Your task to perform on an android device: change the clock display to show seconds Image 0: 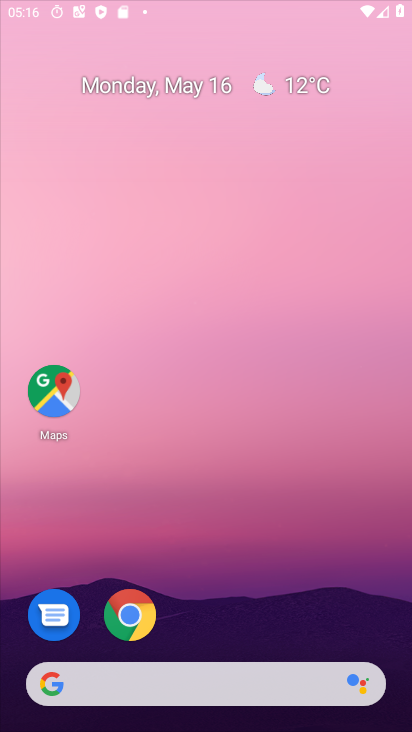
Step 0: drag from (279, 666) to (87, 0)
Your task to perform on an android device: change the clock display to show seconds Image 1: 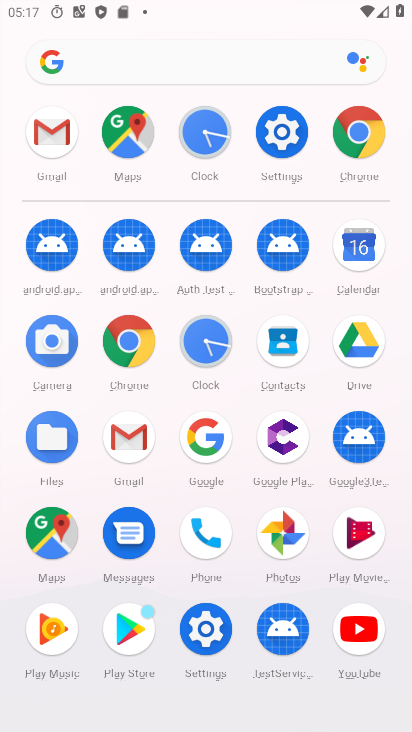
Step 1: click (286, 124)
Your task to perform on an android device: change the clock display to show seconds Image 2: 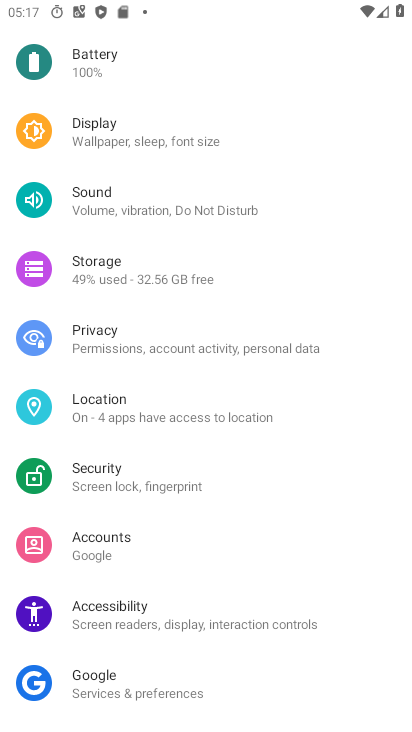
Step 2: drag from (178, 484) to (90, 4)
Your task to perform on an android device: change the clock display to show seconds Image 3: 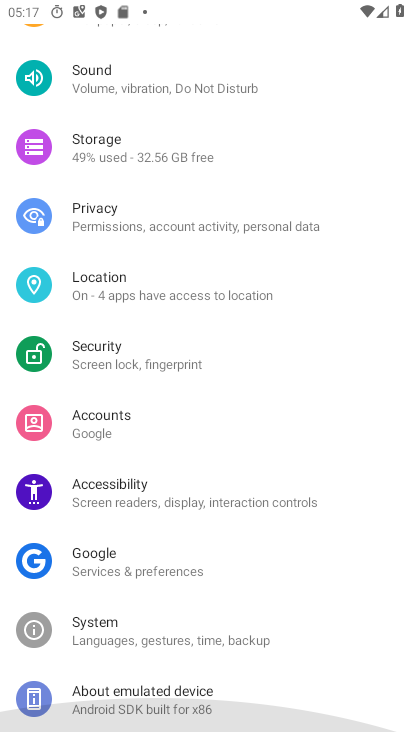
Step 3: drag from (172, 517) to (83, 23)
Your task to perform on an android device: change the clock display to show seconds Image 4: 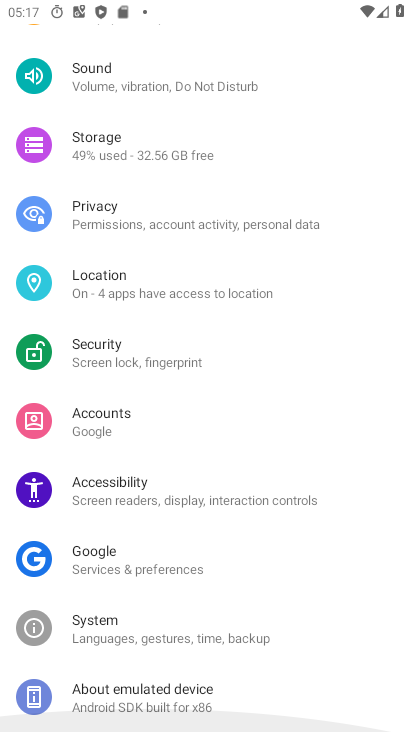
Step 4: drag from (154, 452) to (121, 8)
Your task to perform on an android device: change the clock display to show seconds Image 5: 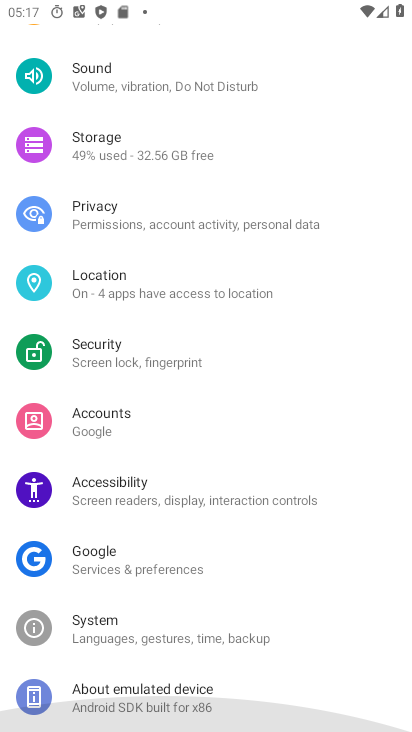
Step 5: drag from (146, 506) to (237, 15)
Your task to perform on an android device: change the clock display to show seconds Image 6: 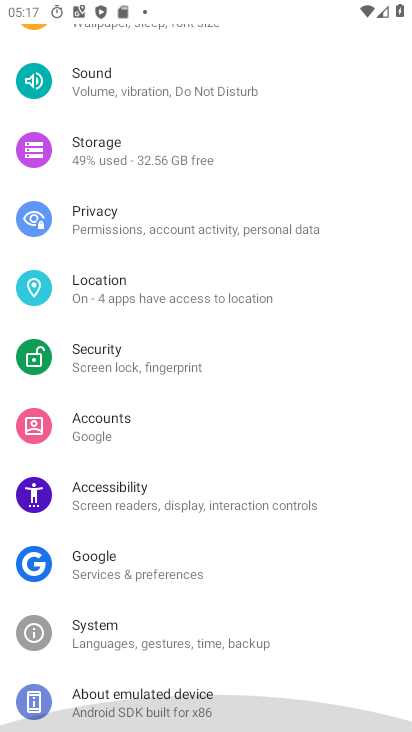
Step 6: drag from (163, 548) to (115, 48)
Your task to perform on an android device: change the clock display to show seconds Image 7: 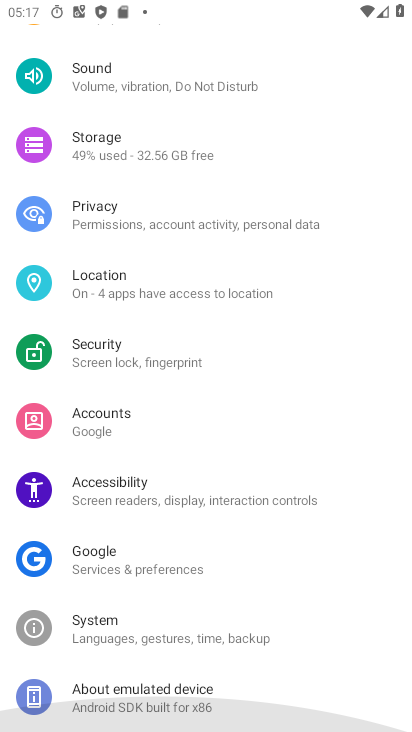
Step 7: drag from (148, 568) to (162, 5)
Your task to perform on an android device: change the clock display to show seconds Image 8: 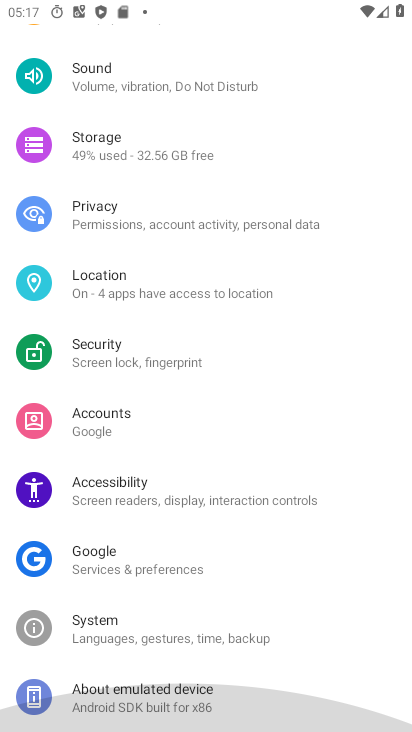
Step 8: drag from (284, 483) to (256, 147)
Your task to perform on an android device: change the clock display to show seconds Image 9: 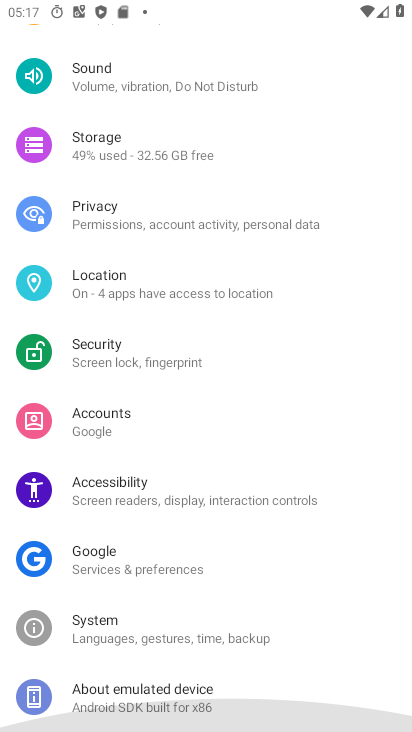
Step 9: drag from (249, 655) to (247, 99)
Your task to perform on an android device: change the clock display to show seconds Image 10: 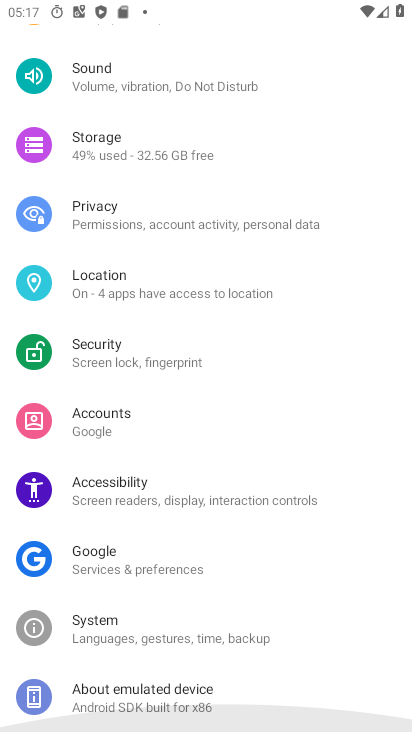
Step 10: drag from (223, 676) to (271, 153)
Your task to perform on an android device: change the clock display to show seconds Image 11: 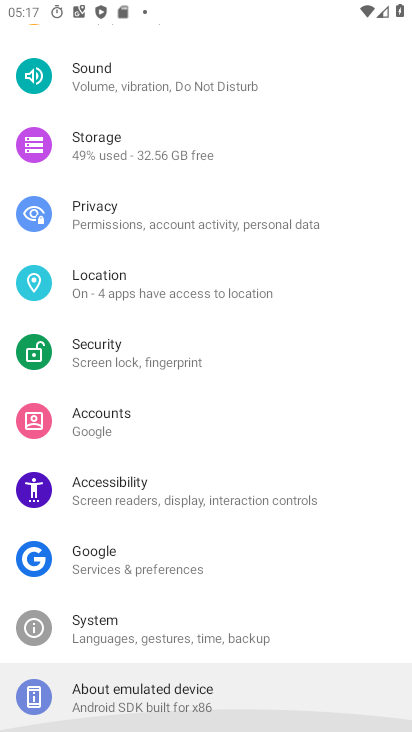
Step 11: drag from (217, 479) to (227, 98)
Your task to perform on an android device: change the clock display to show seconds Image 12: 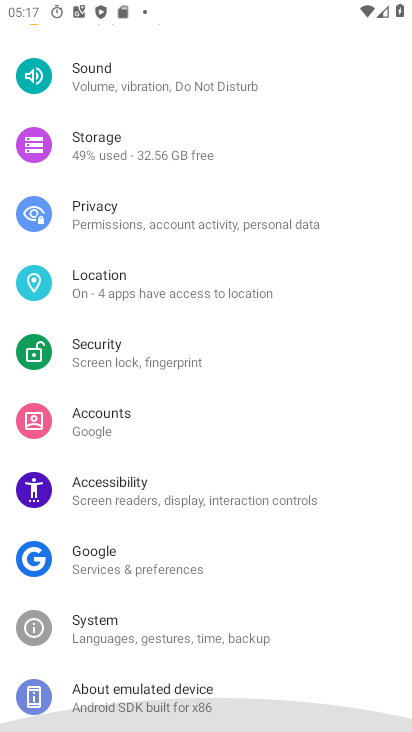
Step 12: drag from (264, 614) to (244, 286)
Your task to perform on an android device: change the clock display to show seconds Image 13: 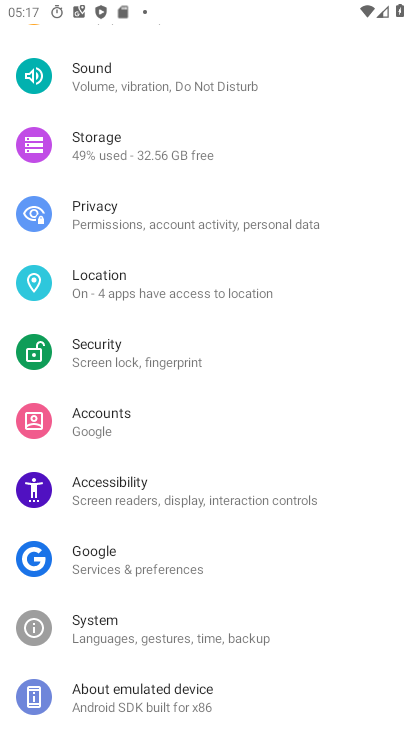
Step 13: drag from (130, 211) to (131, 644)
Your task to perform on an android device: change the clock display to show seconds Image 14: 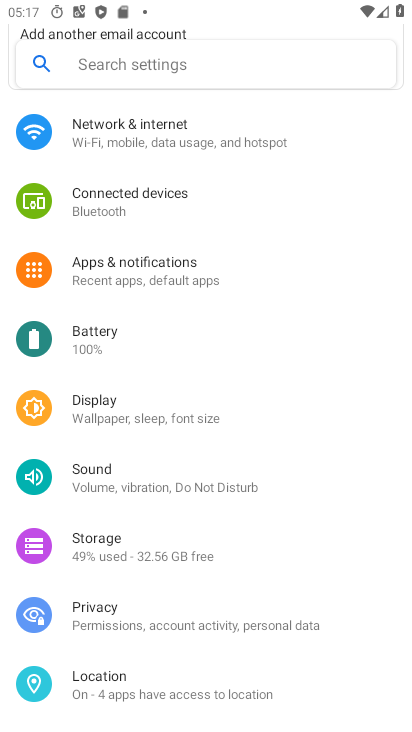
Step 14: drag from (119, 287) to (186, 603)
Your task to perform on an android device: change the clock display to show seconds Image 15: 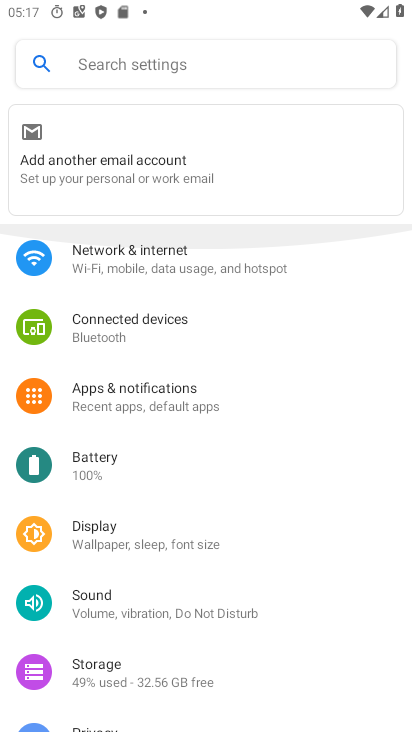
Step 15: drag from (204, 219) to (214, 725)
Your task to perform on an android device: change the clock display to show seconds Image 16: 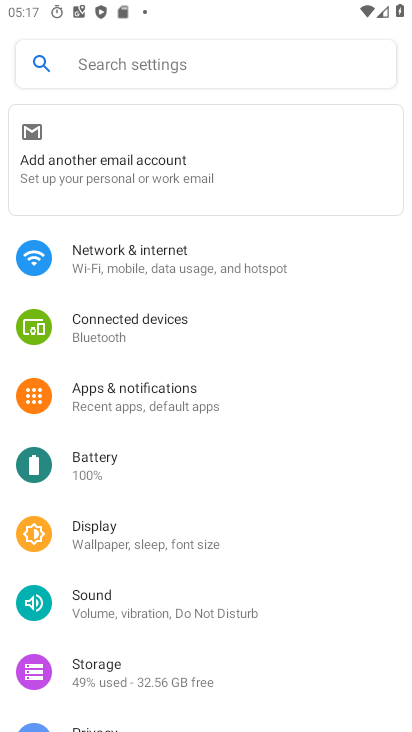
Step 16: drag from (193, 439) to (238, 174)
Your task to perform on an android device: change the clock display to show seconds Image 17: 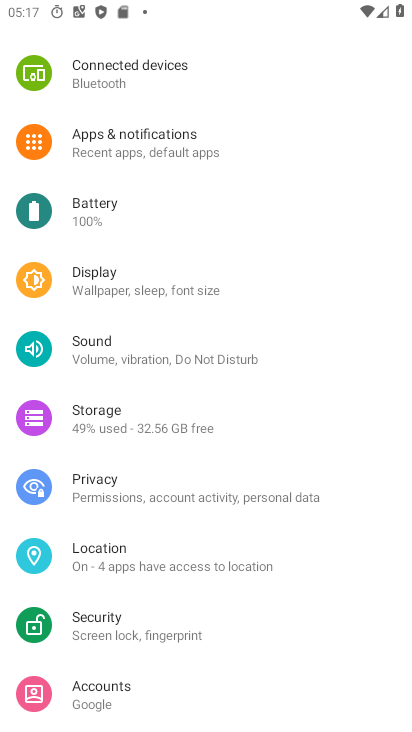
Step 17: drag from (248, 626) to (238, 202)
Your task to perform on an android device: change the clock display to show seconds Image 18: 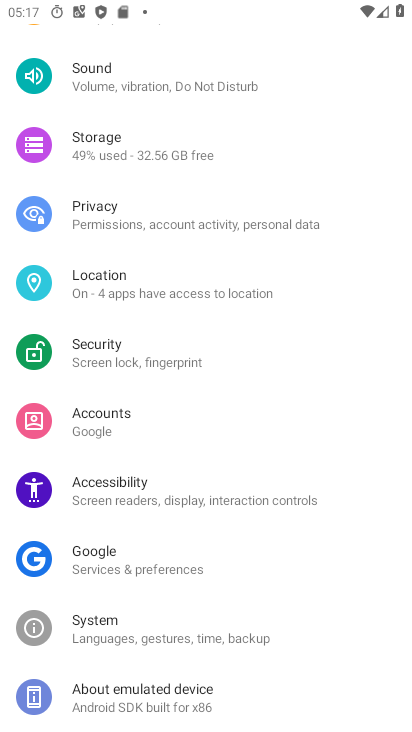
Step 18: drag from (263, 529) to (223, 204)
Your task to perform on an android device: change the clock display to show seconds Image 19: 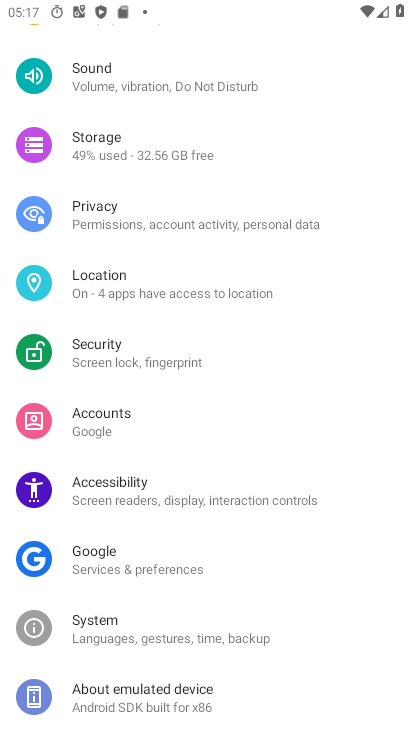
Step 19: press back button
Your task to perform on an android device: change the clock display to show seconds Image 20: 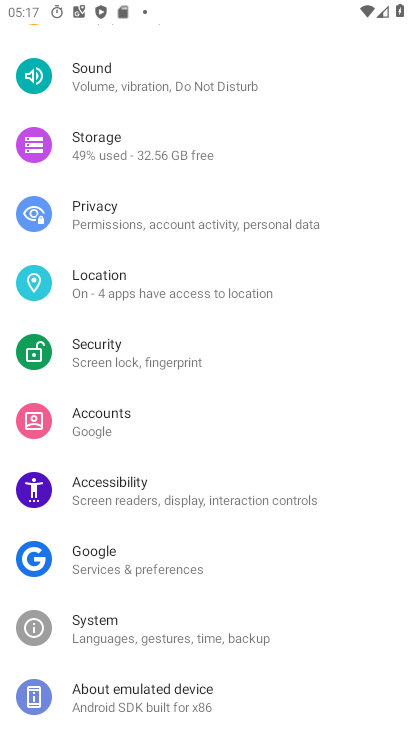
Step 20: press back button
Your task to perform on an android device: change the clock display to show seconds Image 21: 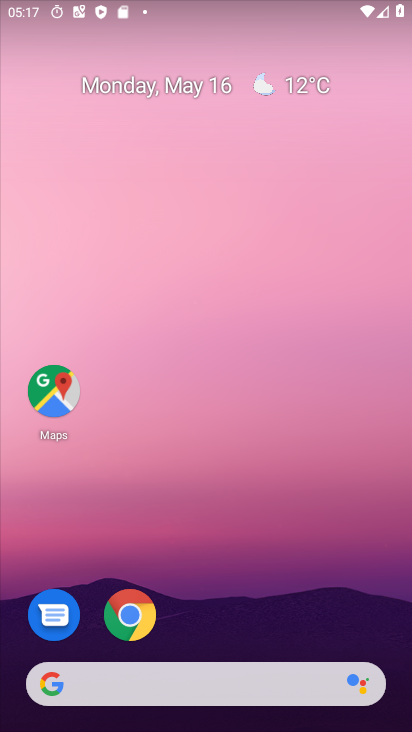
Step 21: drag from (257, 504) to (256, 116)
Your task to perform on an android device: change the clock display to show seconds Image 22: 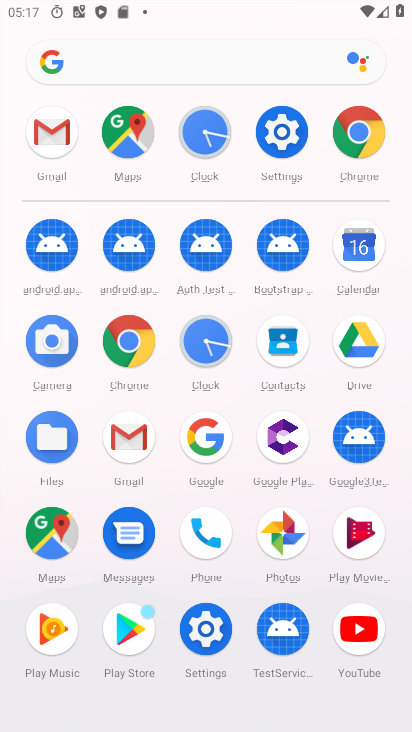
Step 22: click (269, 136)
Your task to perform on an android device: change the clock display to show seconds Image 23: 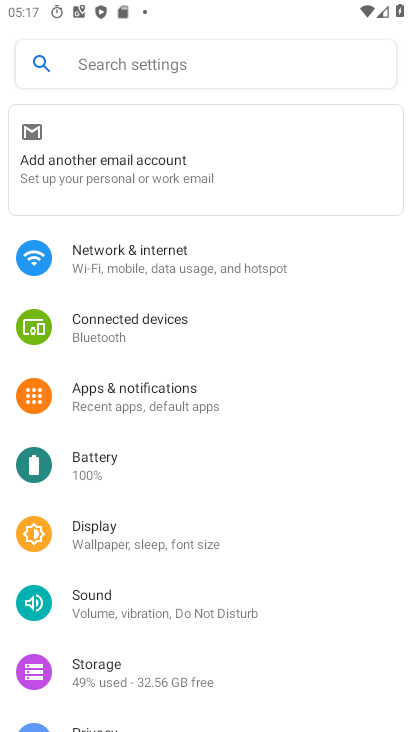
Step 23: press back button
Your task to perform on an android device: change the clock display to show seconds Image 24: 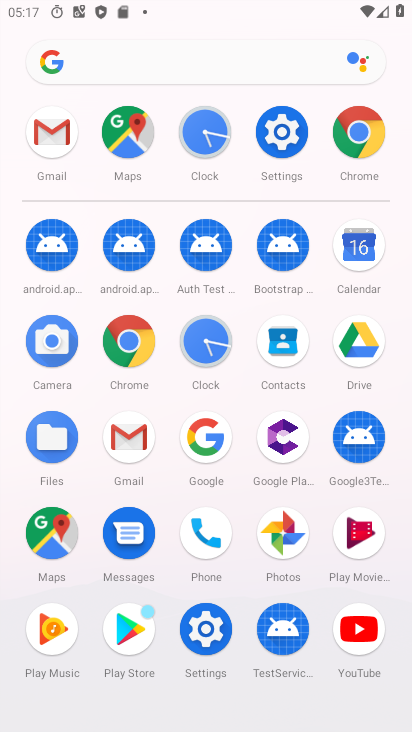
Step 24: click (203, 333)
Your task to perform on an android device: change the clock display to show seconds Image 25: 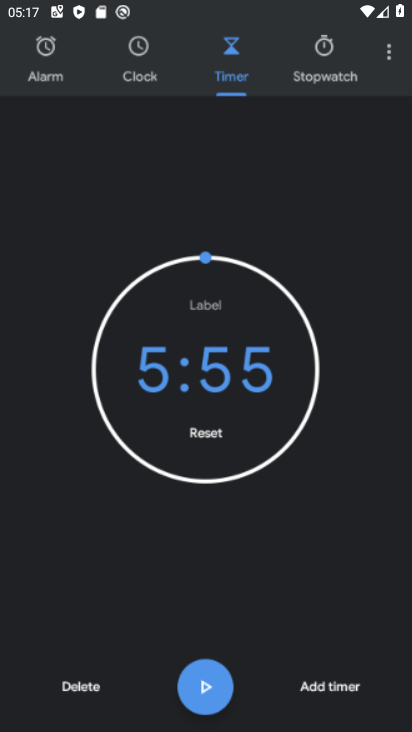
Step 25: click (204, 333)
Your task to perform on an android device: change the clock display to show seconds Image 26: 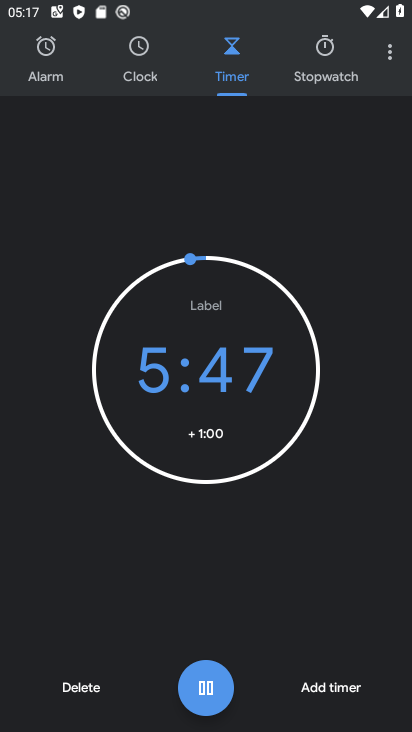
Step 26: click (391, 54)
Your task to perform on an android device: change the clock display to show seconds Image 27: 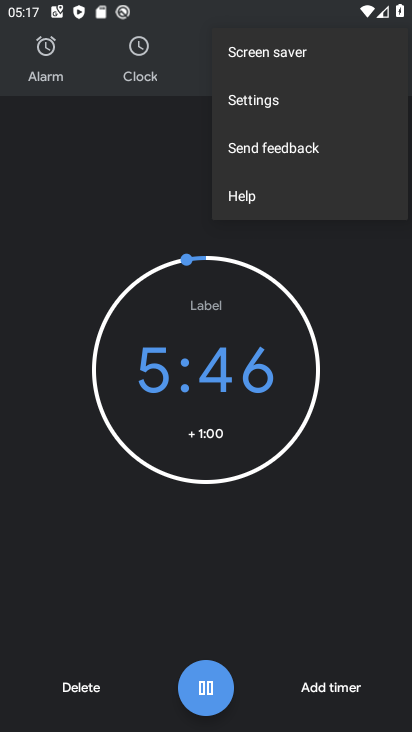
Step 27: click (256, 111)
Your task to perform on an android device: change the clock display to show seconds Image 28: 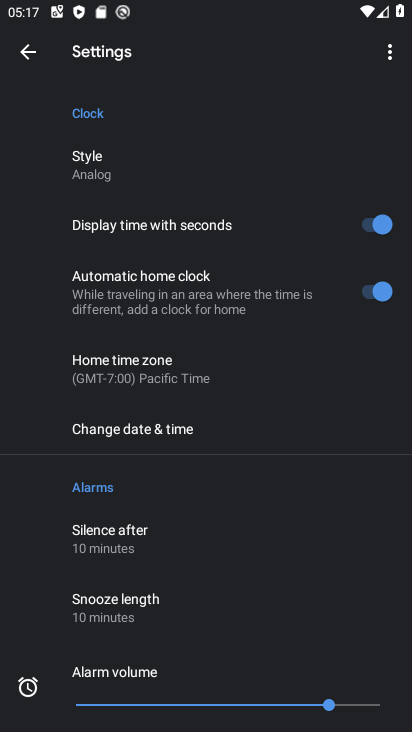
Step 28: task complete